Your task to perform on an android device: Is it going to rain today? Image 0: 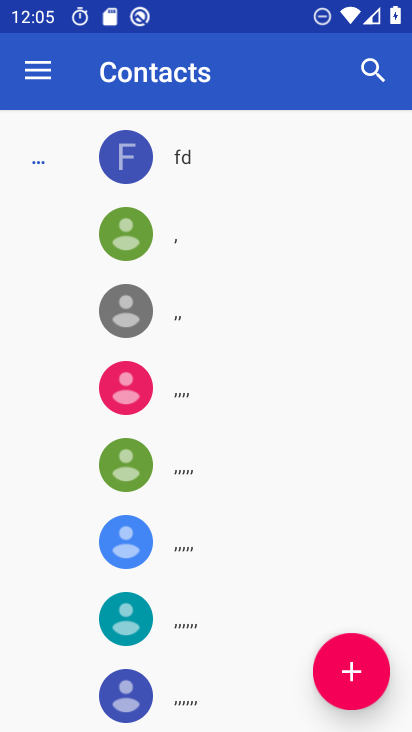
Step 0: press back button
Your task to perform on an android device: Is it going to rain today? Image 1: 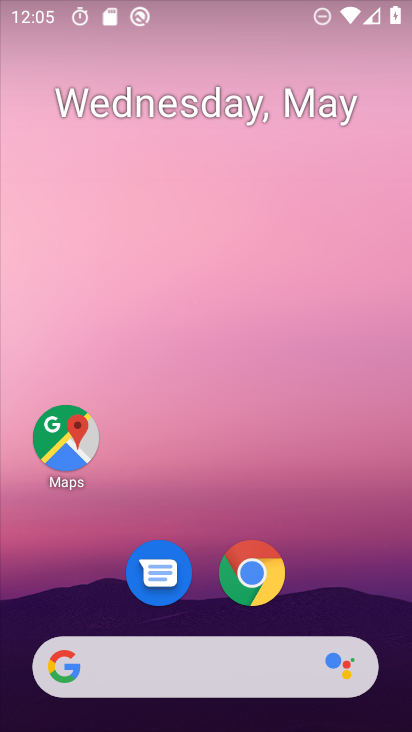
Step 1: drag from (316, 482) to (263, 20)
Your task to perform on an android device: Is it going to rain today? Image 2: 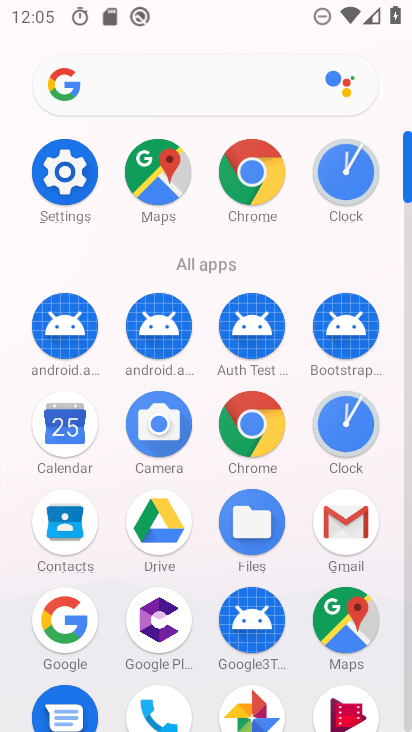
Step 2: click (257, 416)
Your task to perform on an android device: Is it going to rain today? Image 3: 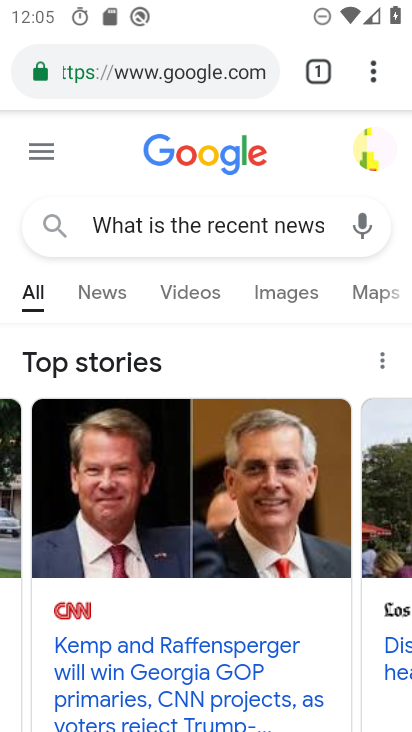
Step 3: click (194, 66)
Your task to perform on an android device: Is it going to rain today? Image 4: 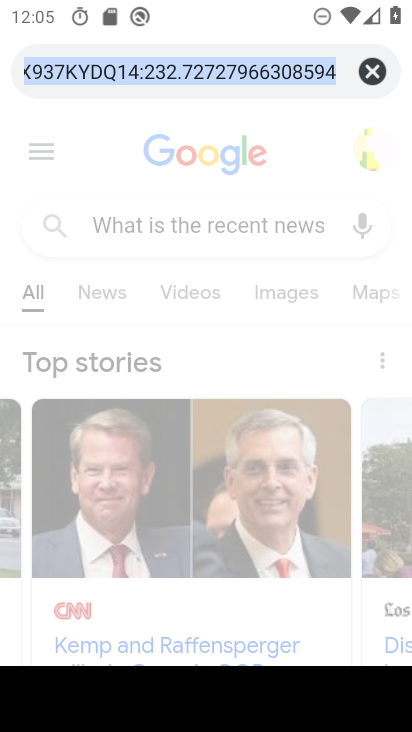
Step 4: click (369, 62)
Your task to perform on an android device: Is it going to rain today? Image 5: 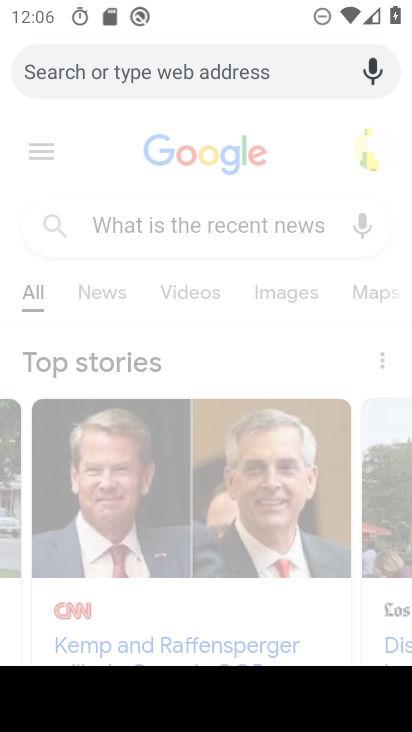
Step 5: type "Is it going to rain today?"
Your task to perform on an android device: Is it going to rain today? Image 6: 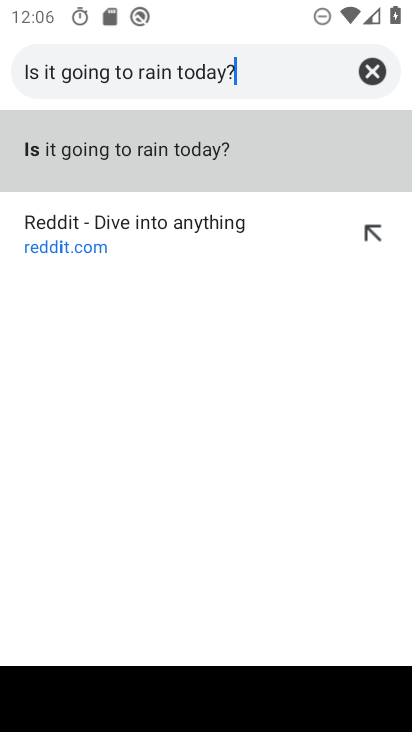
Step 6: type ""
Your task to perform on an android device: Is it going to rain today? Image 7: 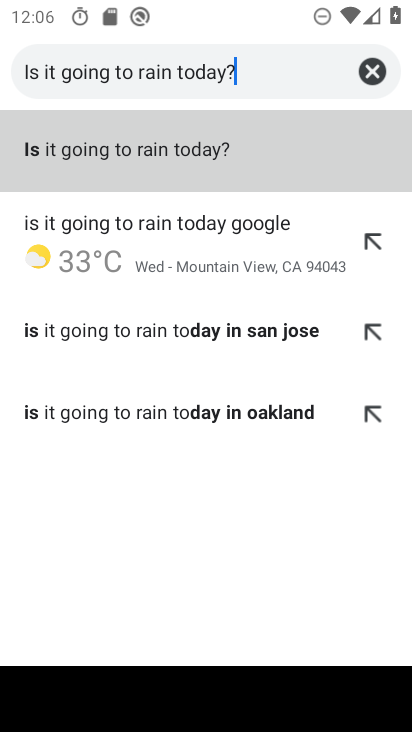
Step 7: click (181, 158)
Your task to perform on an android device: Is it going to rain today? Image 8: 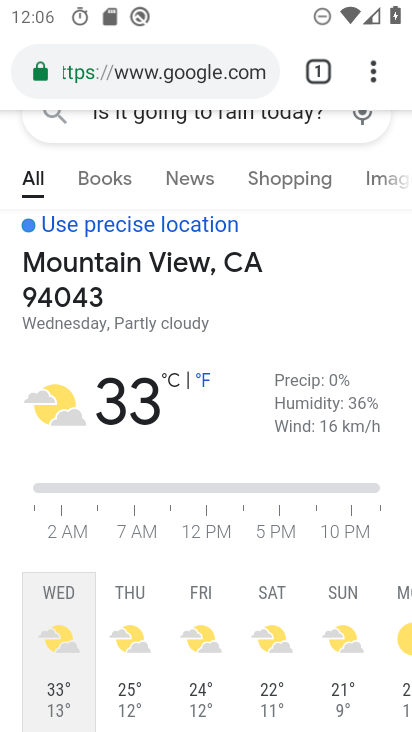
Step 8: task complete